Your task to perform on an android device: Open Maps and search for coffee Image 0: 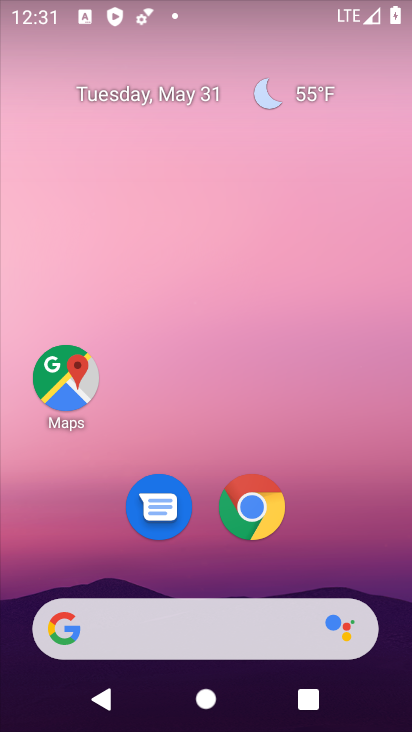
Step 0: drag from (391, 629) to (255, 46)
Your task to perform on an android device: Open Maps and search for coffee Image 1: 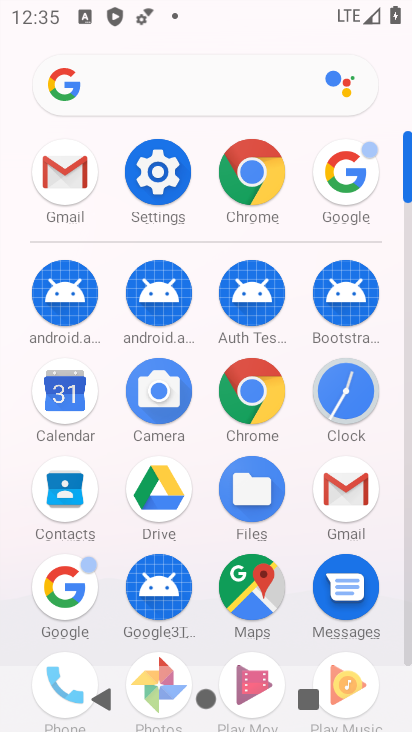
Step 1: click (256, 591)
Your task to perform on an android device: Open Maps and search for coffee Image 2: 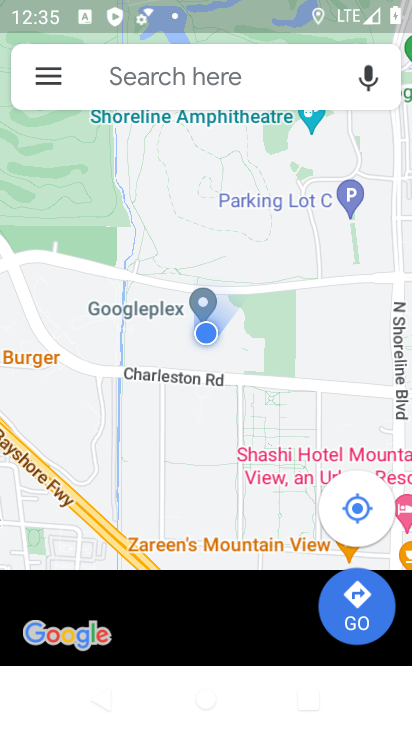
Step 2: click (167, 78)
Your task to perform on an android device: Open Maps and search for coffee Image 3: 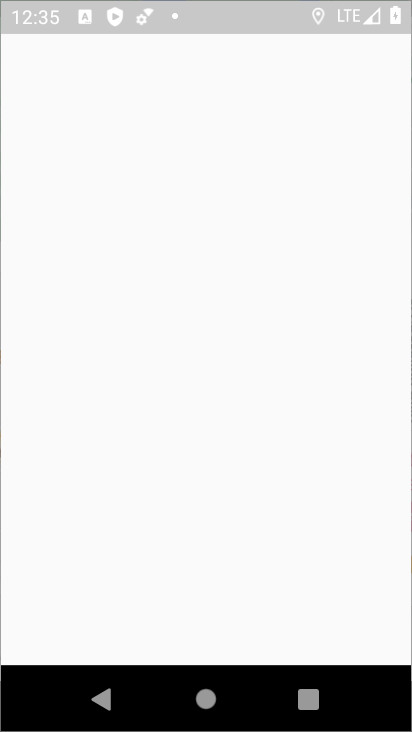
Step 3: click (154, 300)
Your task to perform on an android device: Open Maps and search for coffee Image 4: 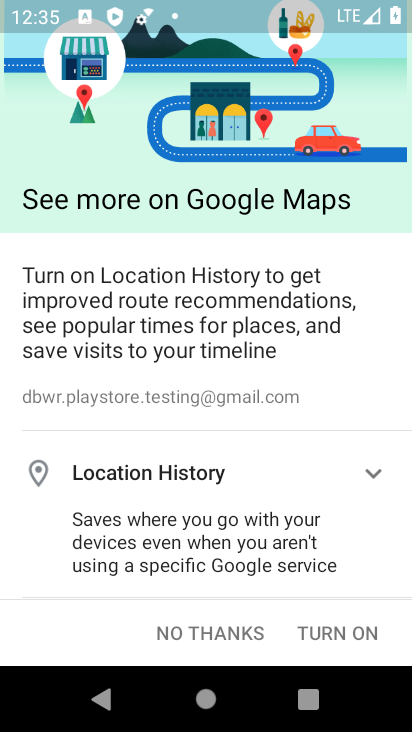
Step 4: click (214, 621)
Your task to perform on an android device: Open Maps and search for coffee Image 5: 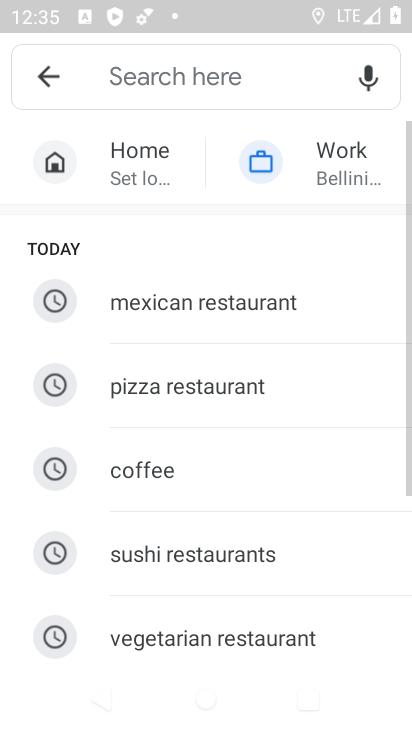
Step 5: click (162, 467)
Your task to perform on an android device: Open Maps and search for coffee Image 6: 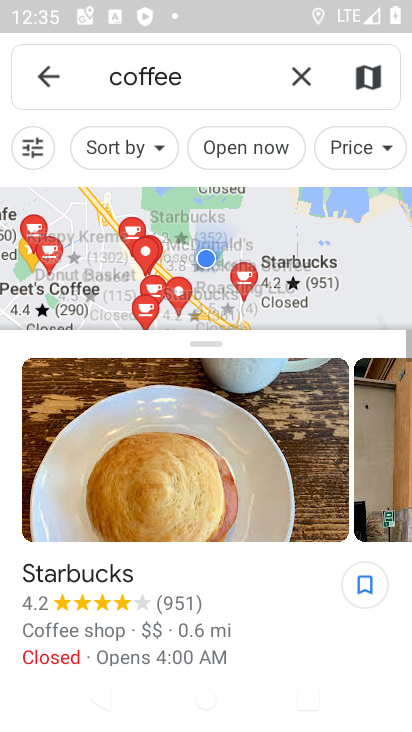
Step 6: task complete